Your task to perform on an android device: turn off notifications settings in the gmail app Image 0: 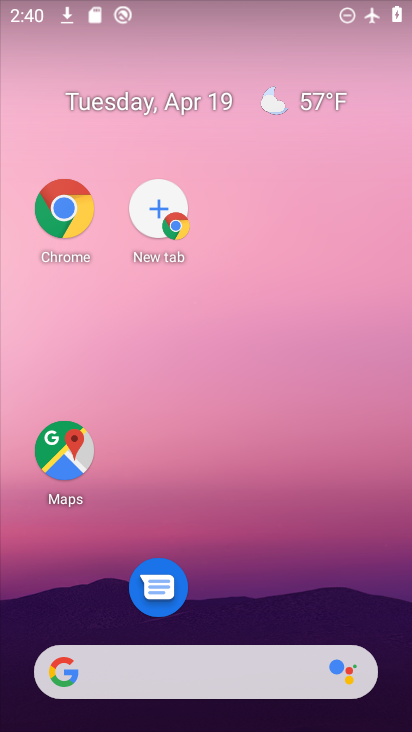
Step 0: drag from (210, 569) to (202, 437)
Your task to perform on an android device: turn off notifications settings in the gmail app Image 1: 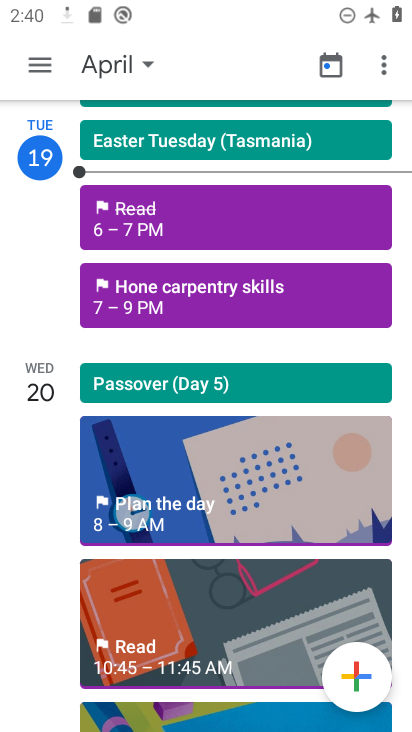
Step 1: press home button
Your task to perform on an android device: turn off notifications settings in the gmail app Image 2: 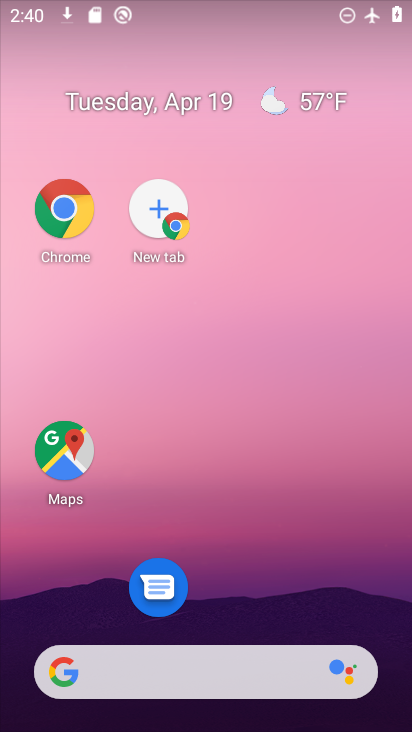
Step 2: drag from (258, 570) to (258, 159)
Your task to perform on an android device: turn off notifications settings in the gmail app Image 3: 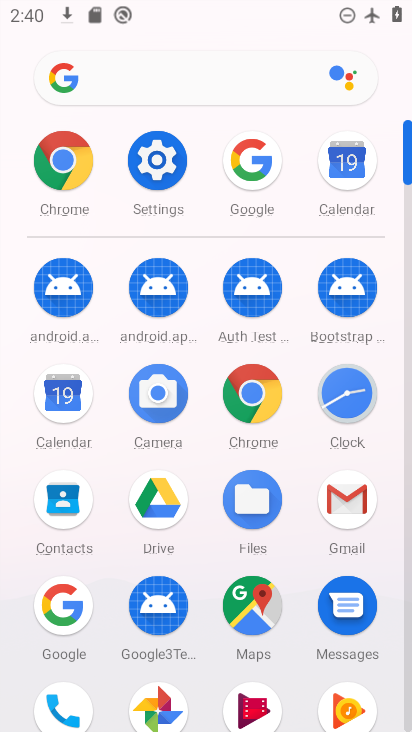
Step 3: click (342, 510)
Your task to perform on an android device: turn off notifications settings in the gmail app Image 4: 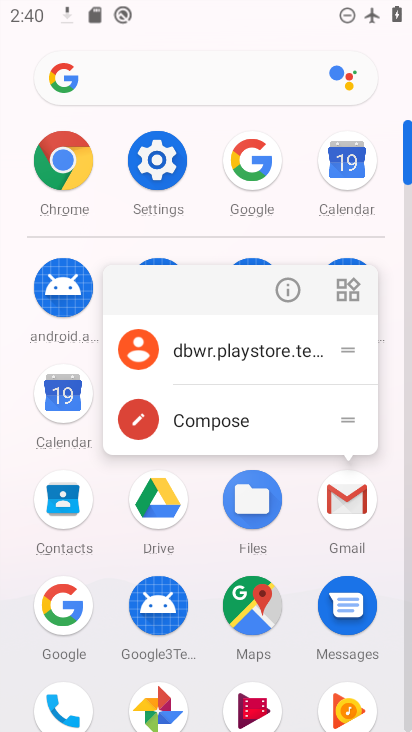
Step 4: click (346, 505)
Your task to perform on an android device: turn off notifications settings in the gmail app Image 5: 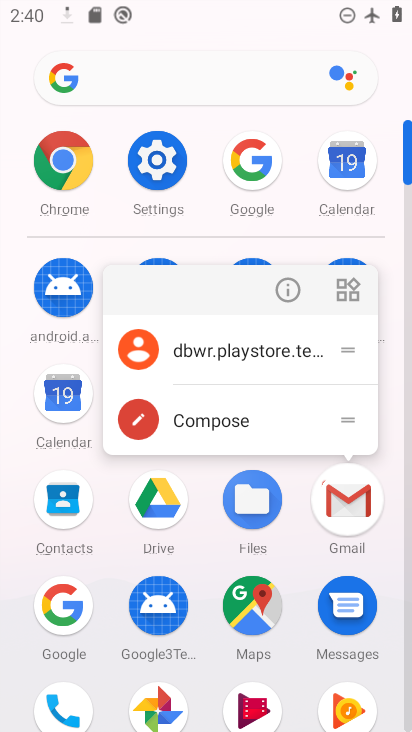
Step 5: click (346, 505)
Your task to perform on an android device: turn off notifications settings in the gmail app Image 6: 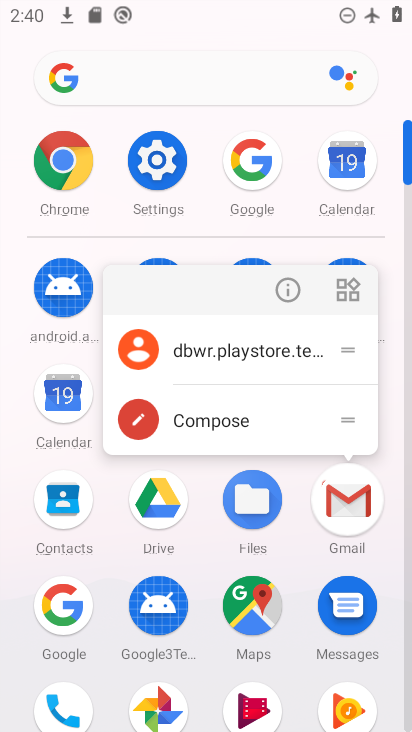
Step 6: click (346, 505)
Your task to perform on an android device: turn off notifications settings in the gmail app Image 7: 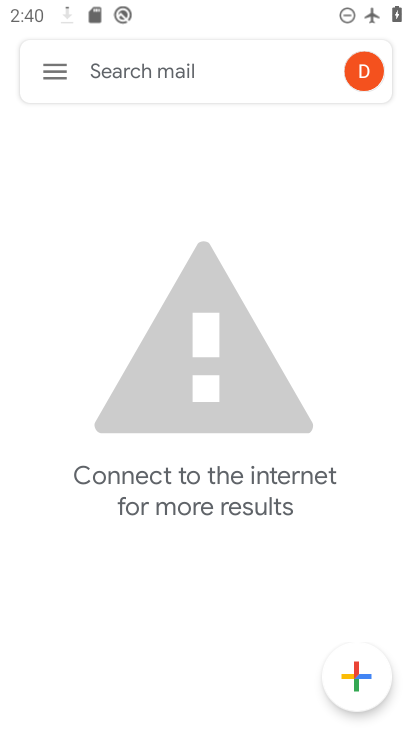
Step 7: task complete